Your task to perform on an android device: View the shopping cart on bestbuy.com. Image 0: 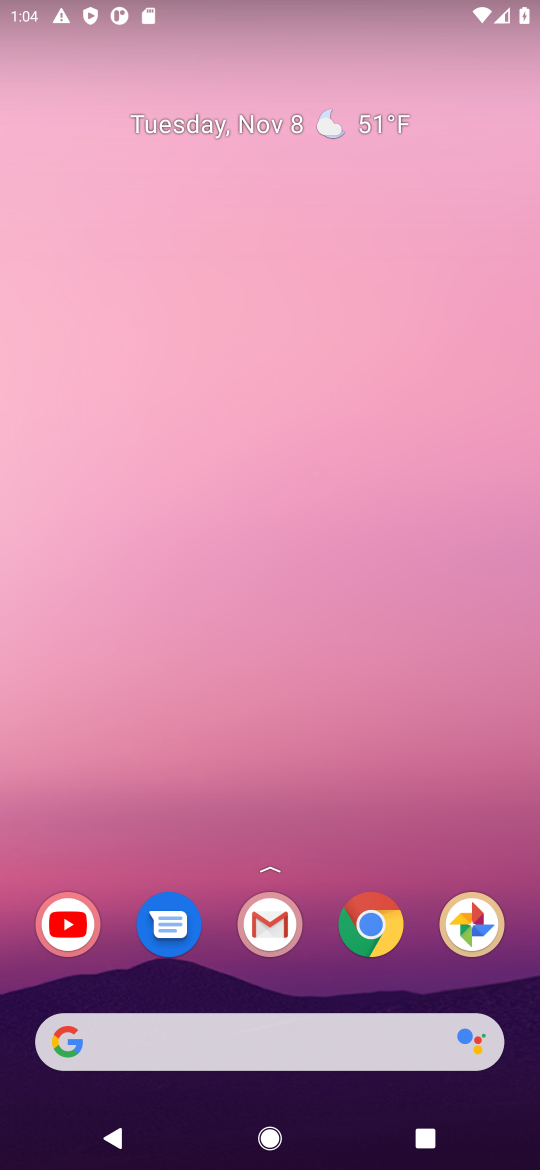
Step 0: click (361, 905)
Your task to perform on an android device: View the shopping cart on bestbuy.com. Image 1: 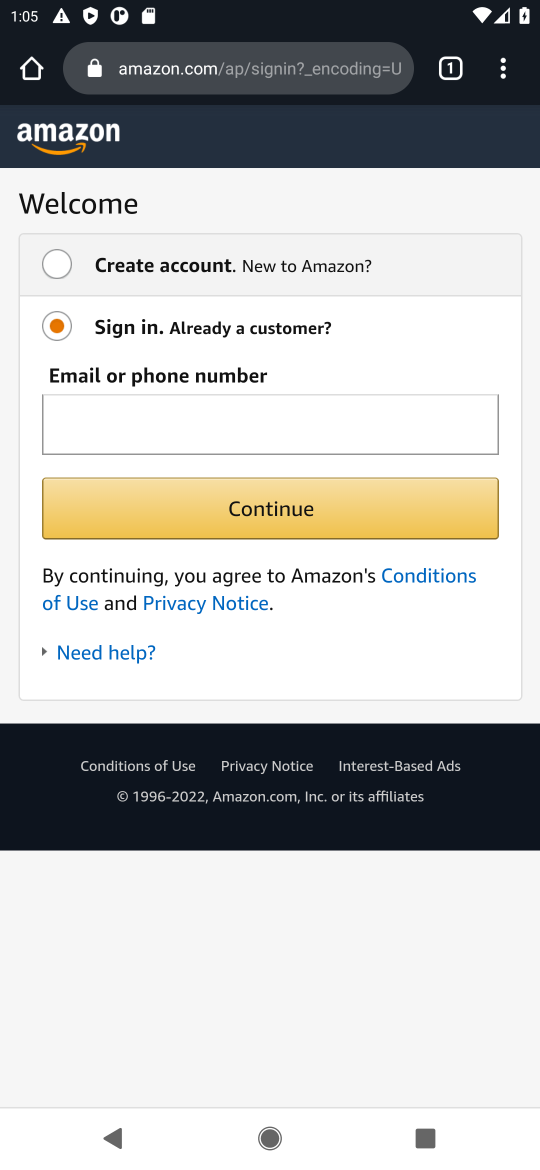
Step 1: click (174, 48)
Your task to perform on an android device: View the shopping cart on bestbuy.com. Image 2: 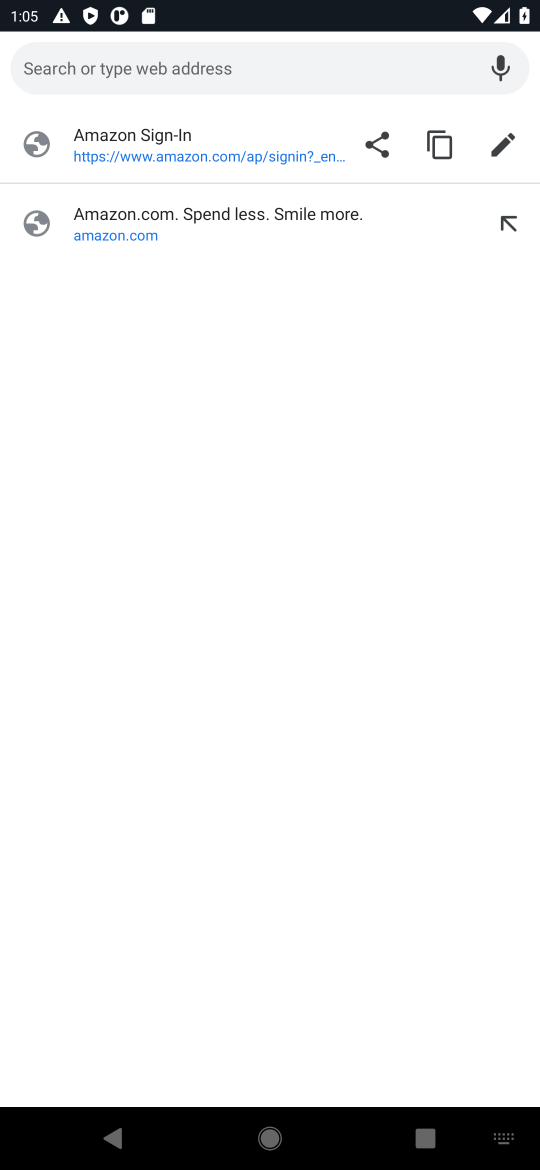
Step 2: type "bestbuy"
Your task to perform on an android device: View the shopping cart on bestbuy.com. Image 3: 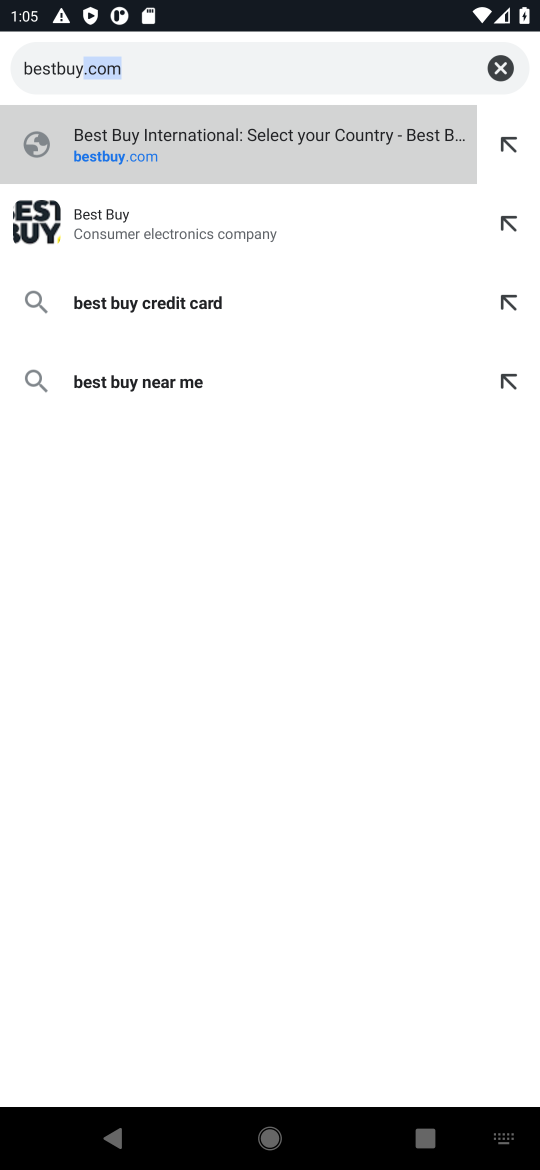
Step 3: click (68, 241)
Your task to perform on an android device: View the shopping cart on bestbuy.com. Image 4: 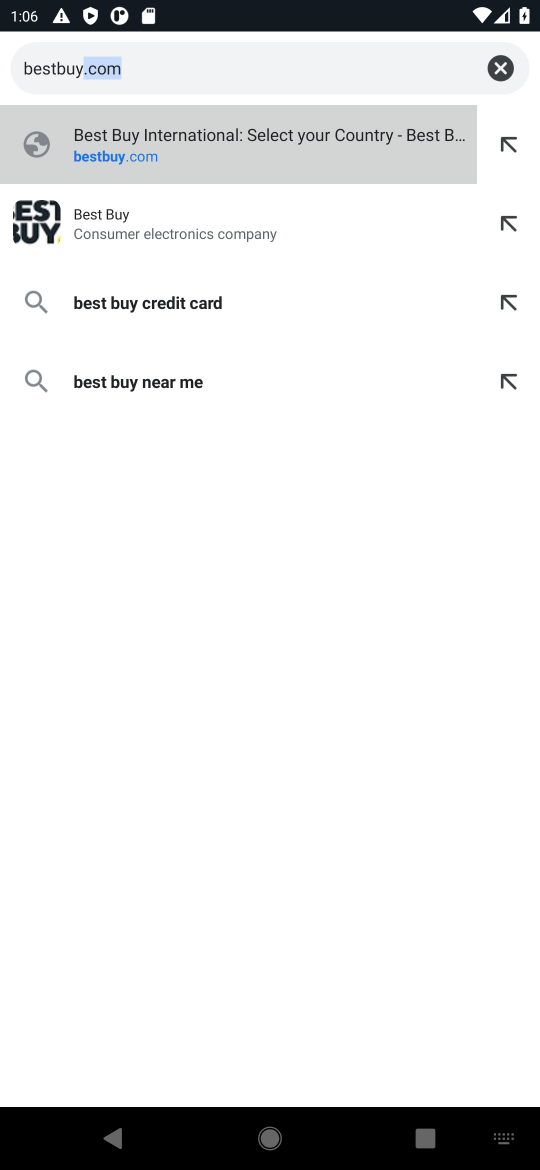
Step 4: click (68, 241)
Your task to perform on an android device: View the shopping cart on bestbuy.com. Image 5: 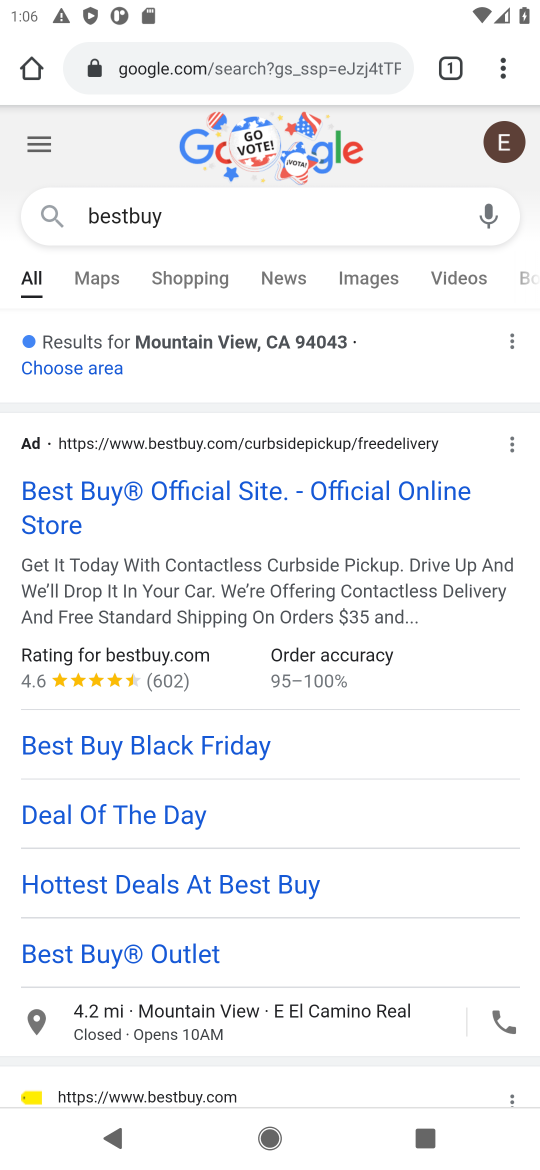
Step 5: click (121, 510)
Your task to perform on an android device: View the shopping cart on bestbuy.com. Image 6: 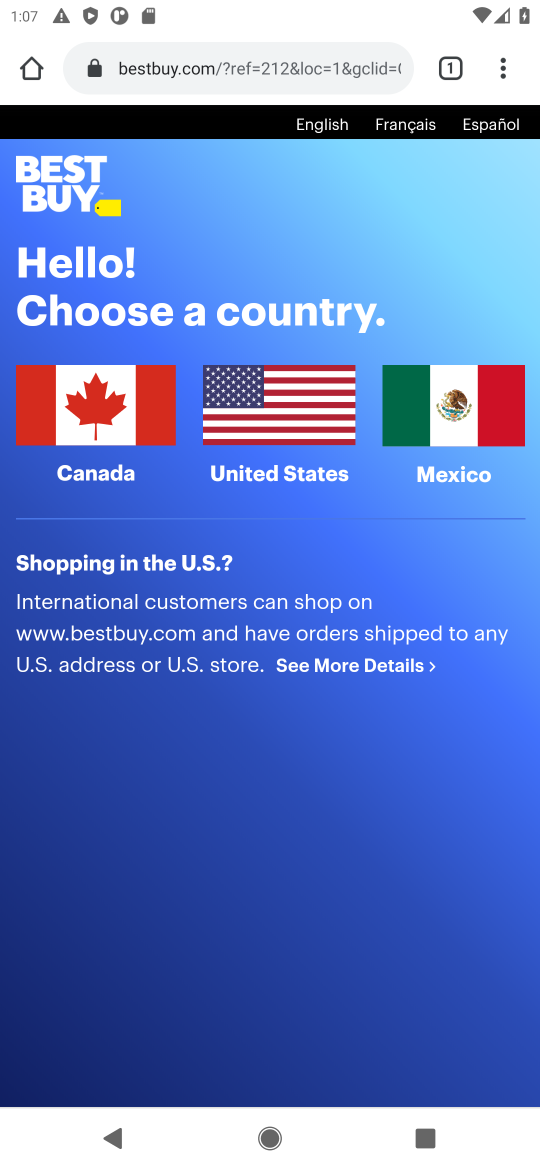
Step 6: click (274, 417)
Your task to perform on an android device: View the shopping cart on bestbuy.com. Image 7: 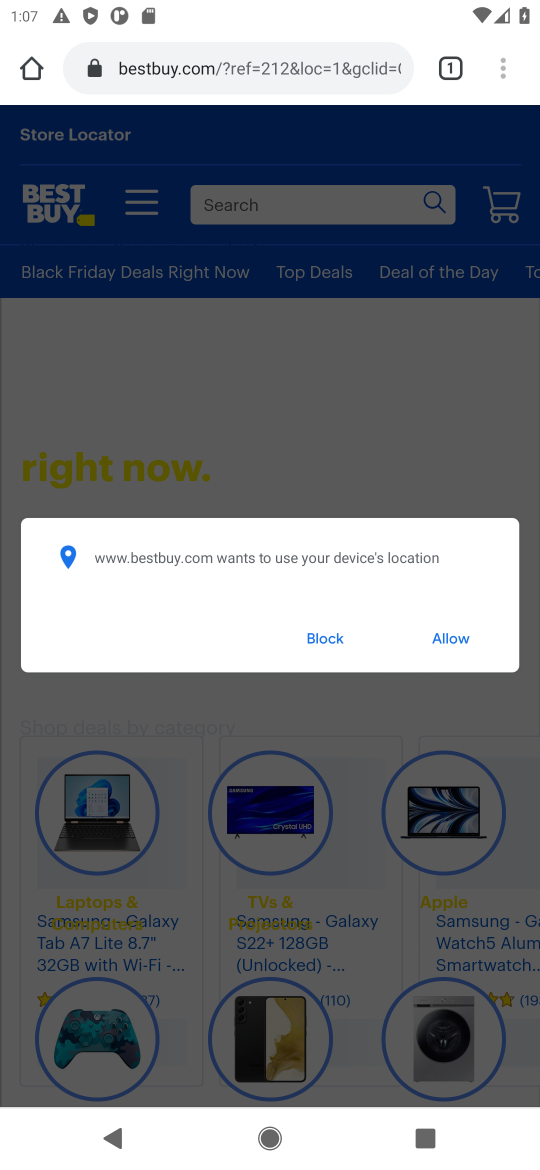
Step 7: click (455, 625)
Your task to perform on an android device: View the shopping cart on bestbuy.com. Image 8: 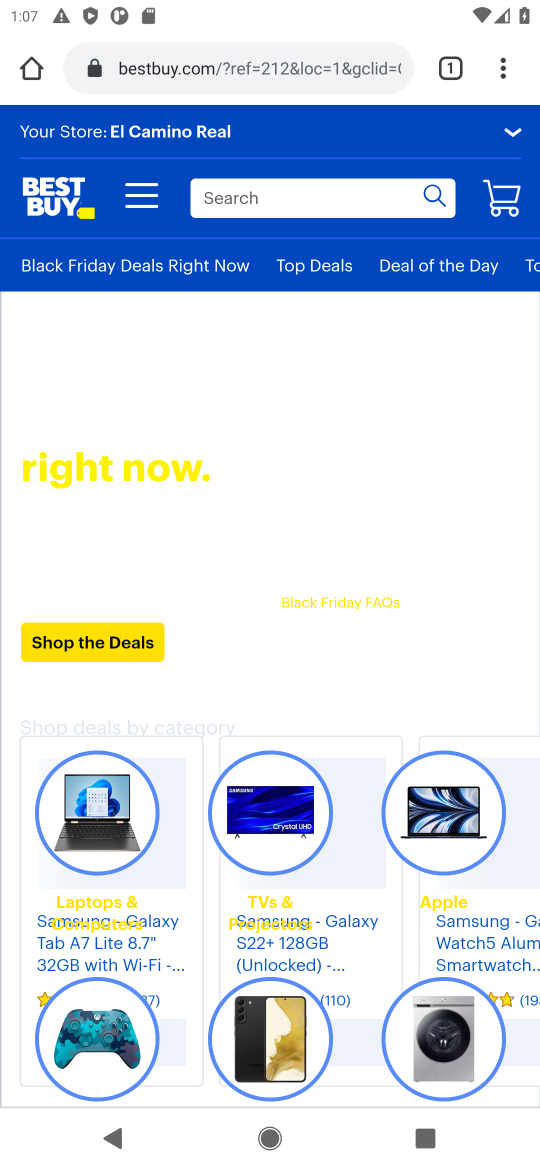
Step 8: click (500, 195)
Your task to perform on an android device: View the shopping cart on bestbuy.com. Image 9: 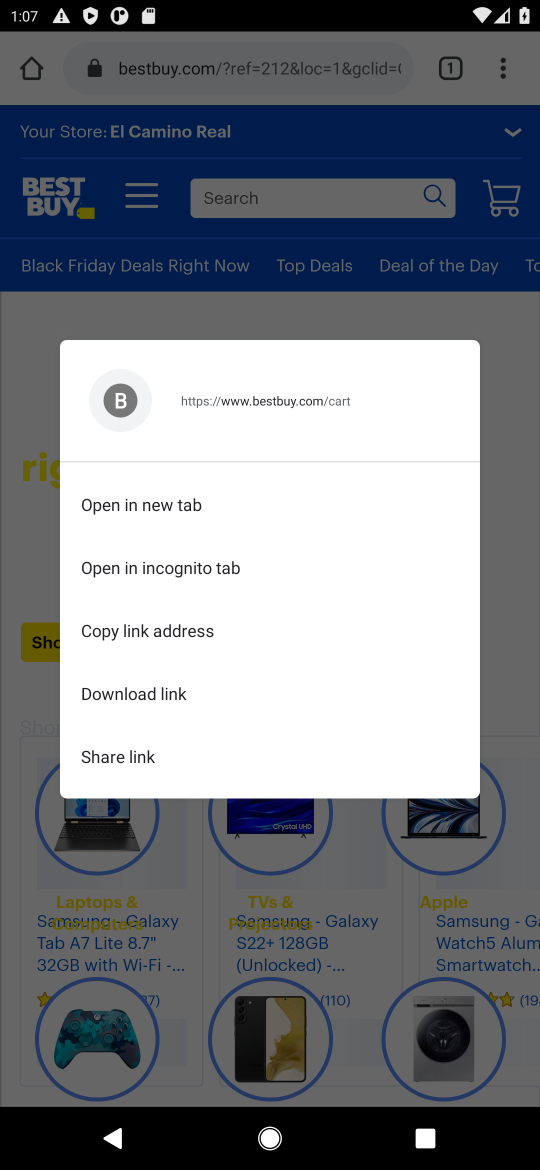
Step 9: click (150, 851)
Your task to perform on an android device: View the shopping cart on bestbuy.com. Image 10: 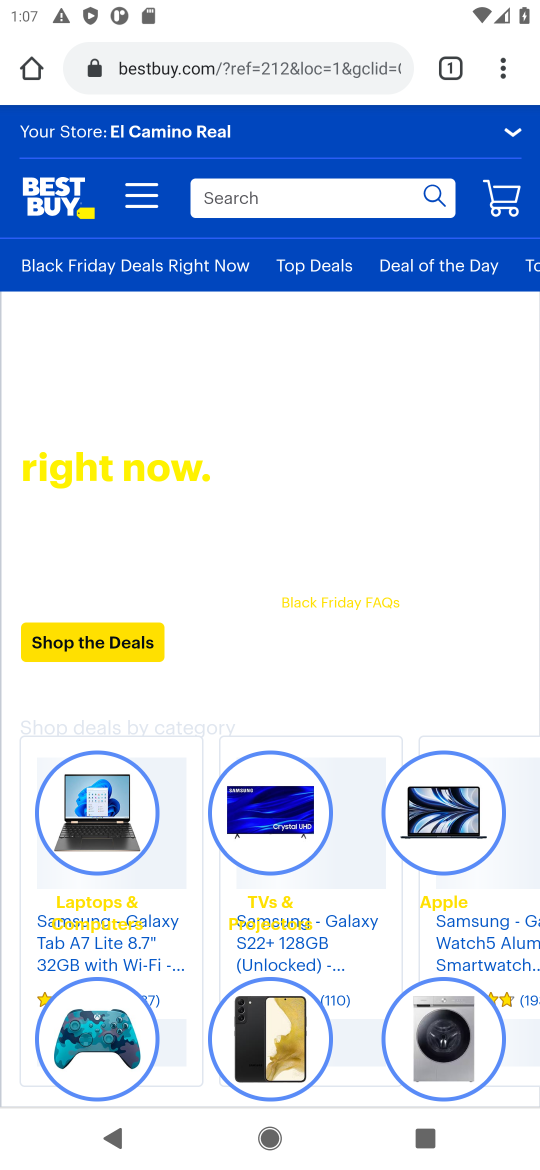
Step 10: click (150, 851)
Your task to perform on an android device: View the shopping cart on bestbuy.com. Image 11: 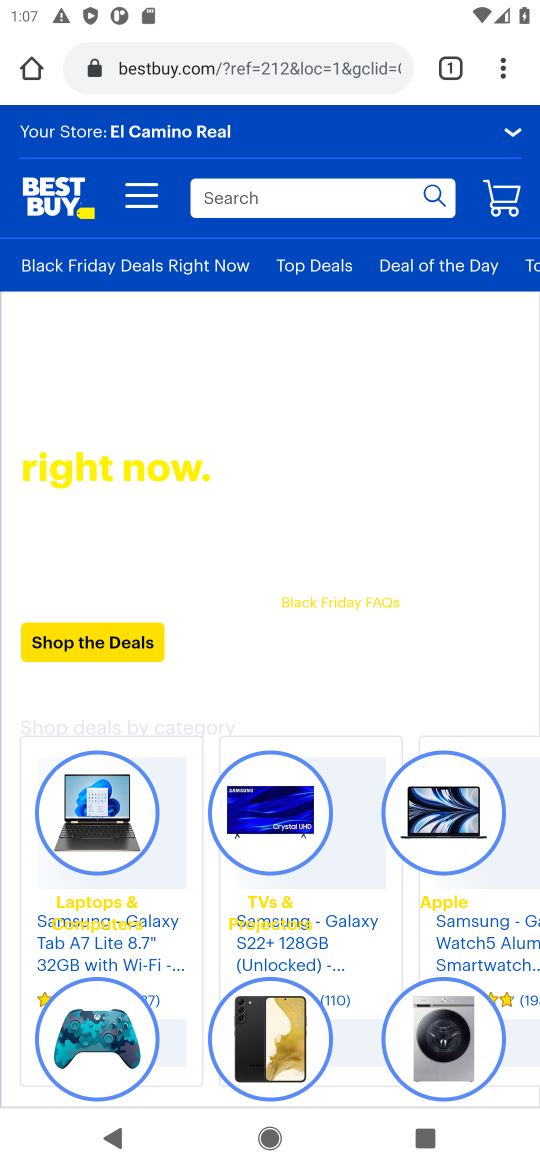
Step 11: task complete